Your task to perform on an android device: What is the recent news? Image 0: 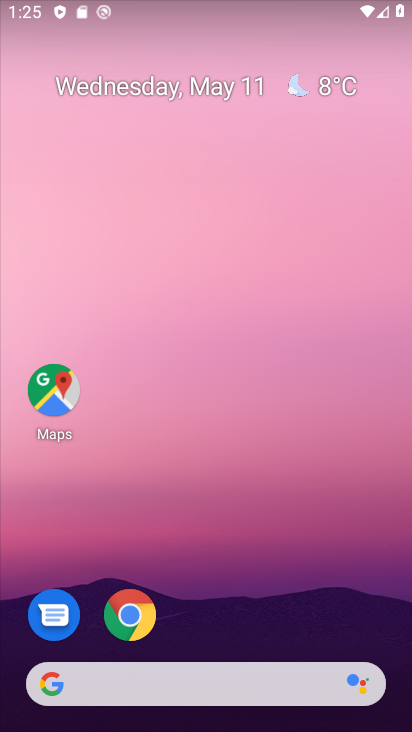
Step 0: drag from (381, 618) to (363, 125)
Your task to perform on an android device: What is the recent news? Image 1: 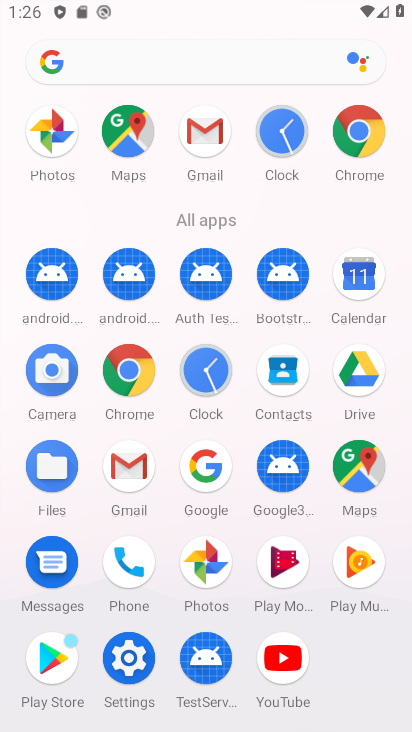
Step 1: click (141, 371)
Your task to perform on an android device: What is the recent news? Image 2: 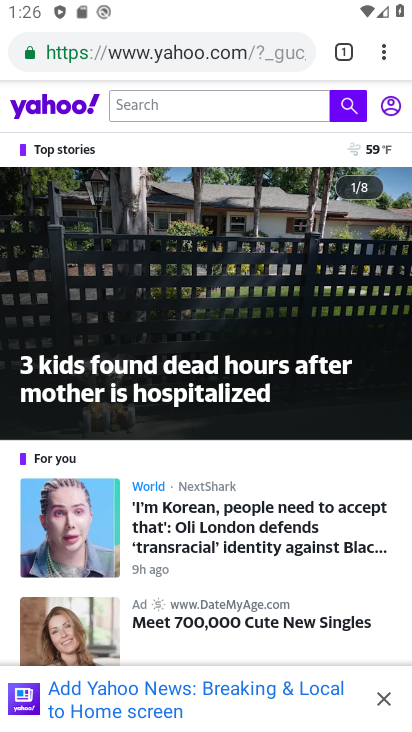
Step 2: click (175, 71)
Your task to perform on an android device: What is the recent news? Image 3: 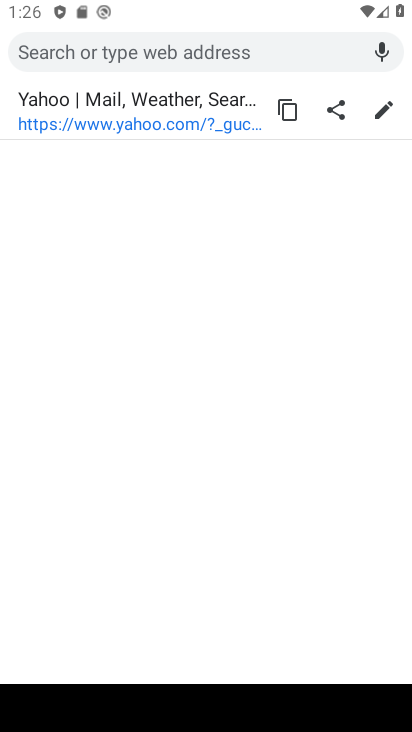
Step 3: type "recent news"
Your task to perform on an android device: What is the recent news? Image 4: 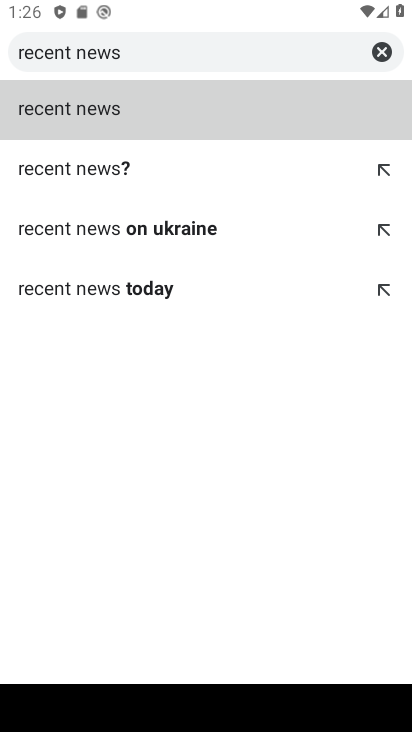
Step 4: click (111, 104)
Your task to perform on an android device: What is the recent news? Image 5: 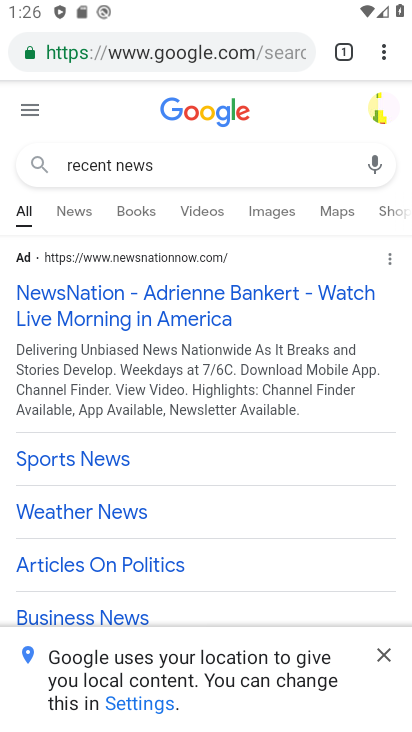
Step 5: task complete